Your task to perform on an android device: turn notification dots off Image 0: 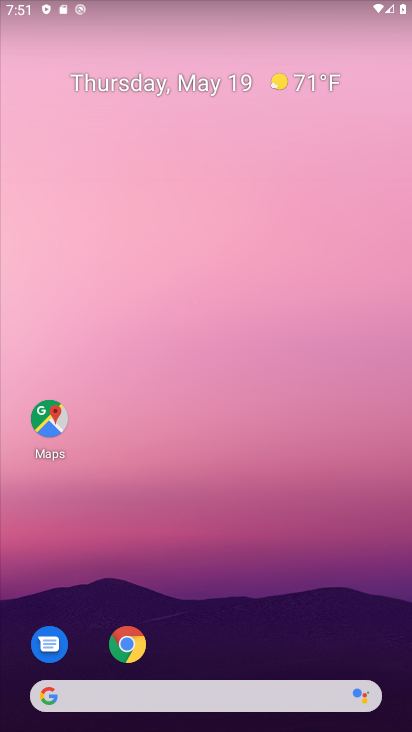
Step 0: drag from (279, 702) to (256, 196)
Your task to perform on an android device: turn notification dots off Image 1: 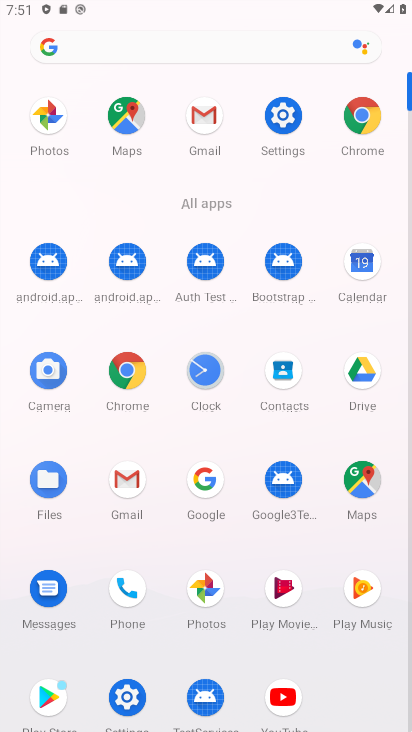
Step 1: click (275, 135)
Your task to perform on an android device: turn notification dots off Image 2: 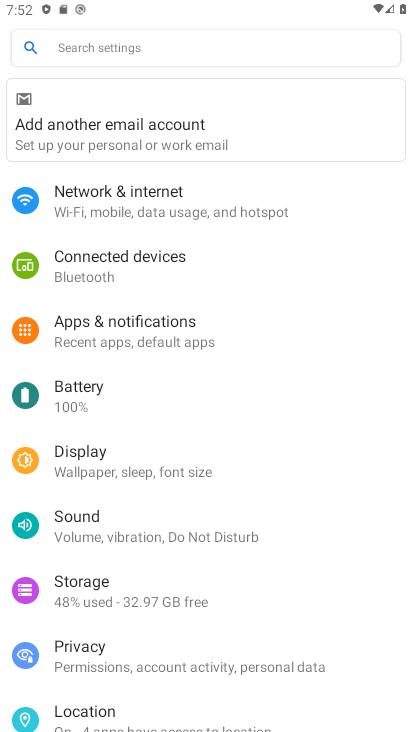
Step 2: click (141, 44)
Your task to perform on an android device: turn notification dots off Image 3: 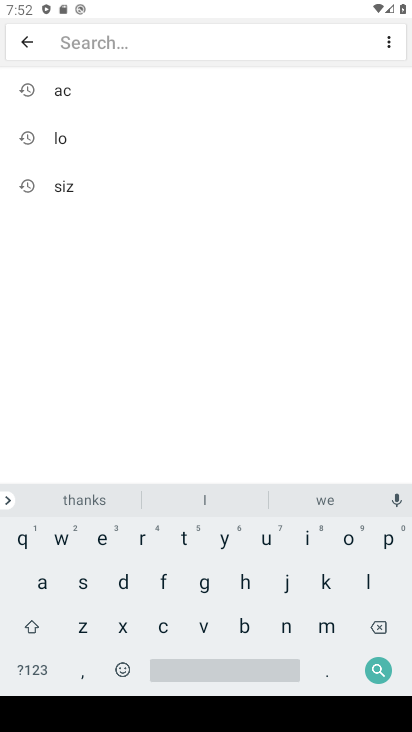
Step 3: click (121, 589)
Your task to perform on an android device: turn notification dots off Image 4: 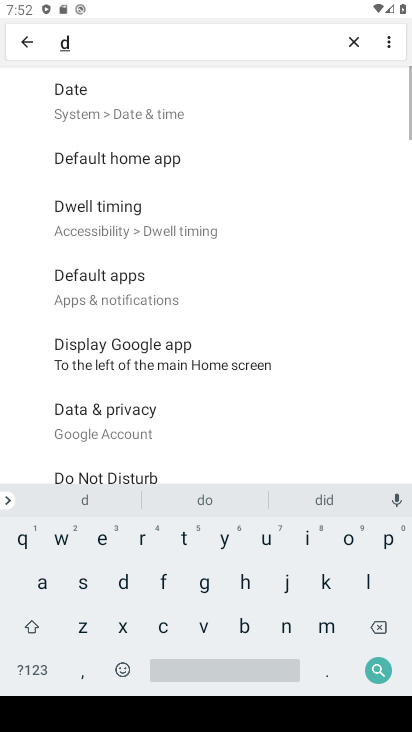
Step 4: click (347, 538)
Your task to perform on an android device: turn notification dots off Image 5: 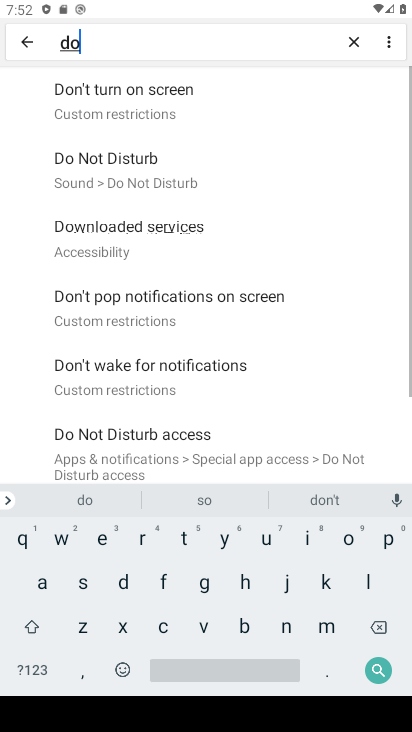
Step 5: click (187, 541)
Your task to perform on an android device: turn notification dots off Image 6: 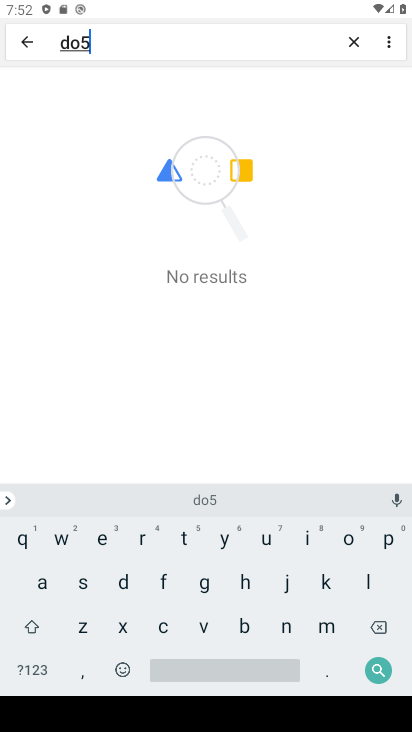
Step 6: click (377, 628)
Your task to perform on an android device: turn notification dots off Image 7: 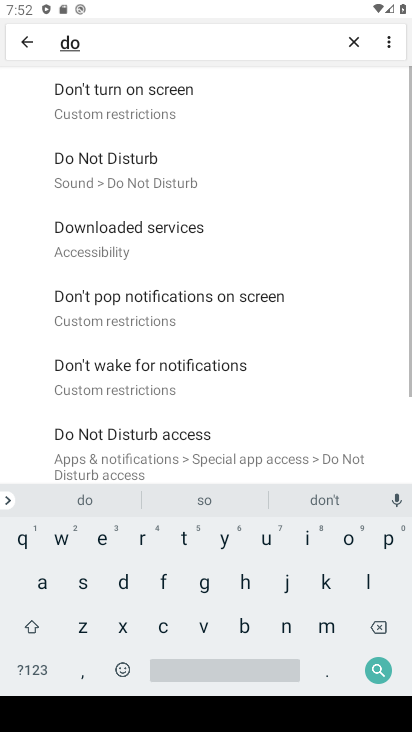
Step 7: click (180, 542)
Your task to perform on an android device: turn notification dots off Image 8: 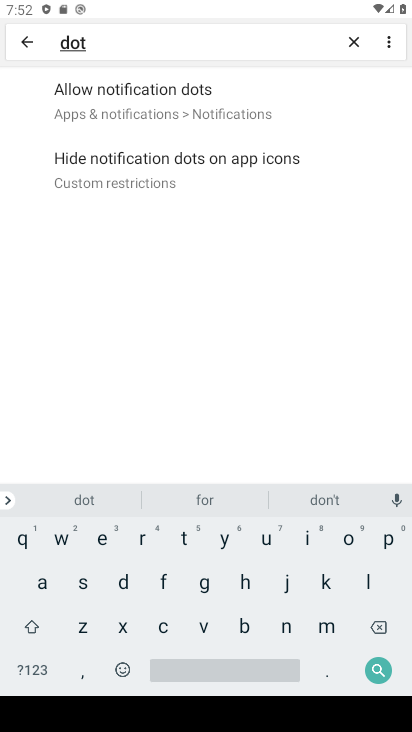
Step 8: click (161, 106)
Your task to perform on an android device: turn notification dots off Image 9: 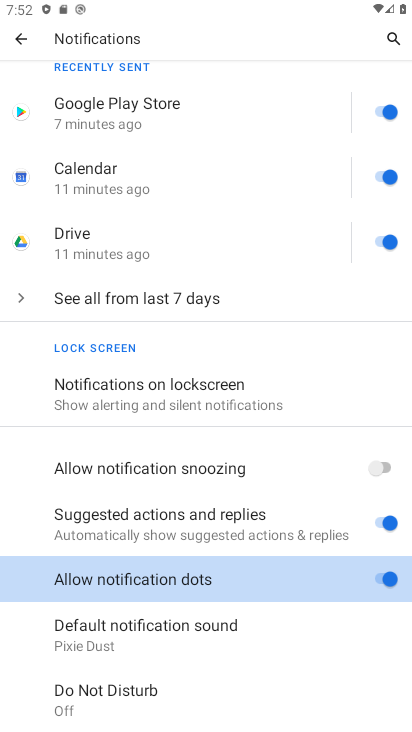
Step 9: click (295, 582)
Your task to perform on an android device: turn notification dots off Image 10: 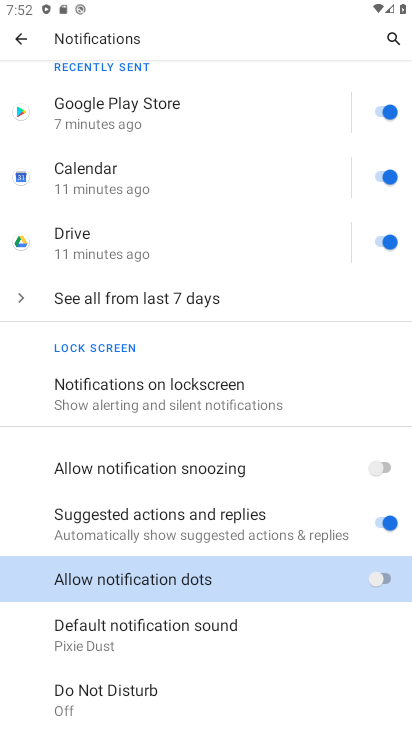
Step 10: task complete